Your task to perform on an android device: change notification settings in the gmail app Image 0: 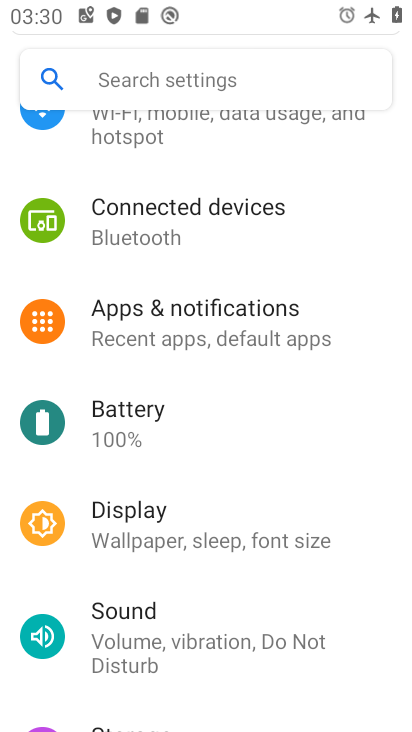
Step 0: press home button
Your task to perform on an android device: change notification settings in the gmail app Image 1: 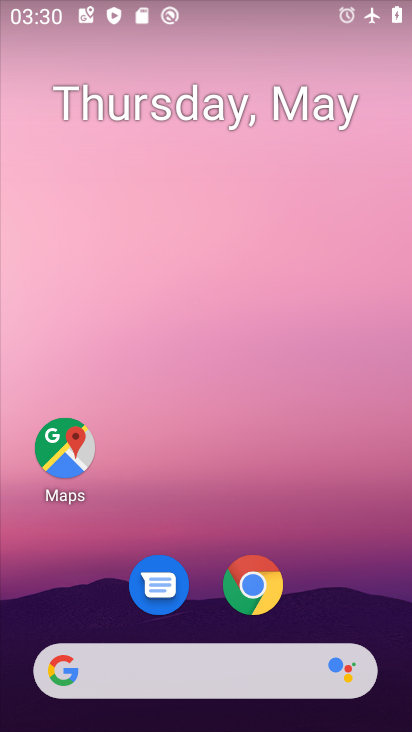
Step 1: drag from (206, 464) to (211, 62)
Your task to perform on an android device: change notification settings in the gmail app Image 2: 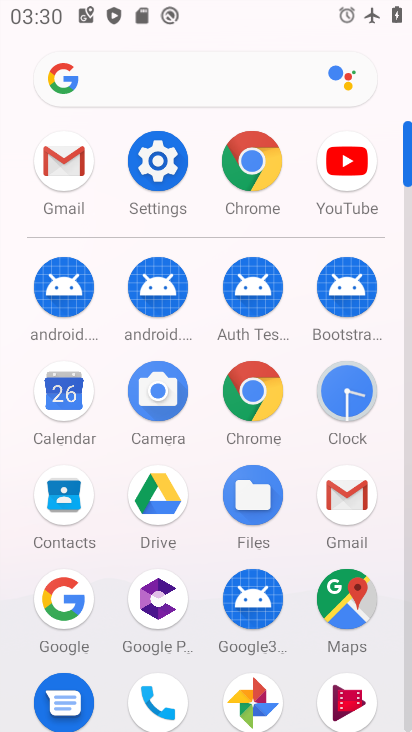
Step 2: click (74, 154)
Your task to perform on an android device: change notification settings in the gmail app Image 3: 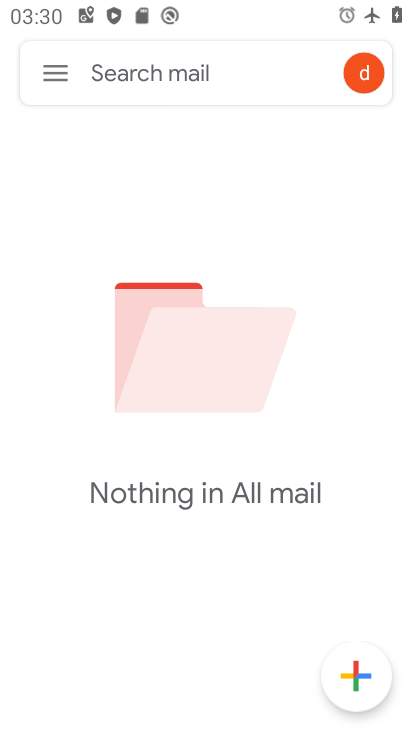
Step 3: click (62, 71)
Your task to perform on an android device: change notification settings in the gmail app Image 4: 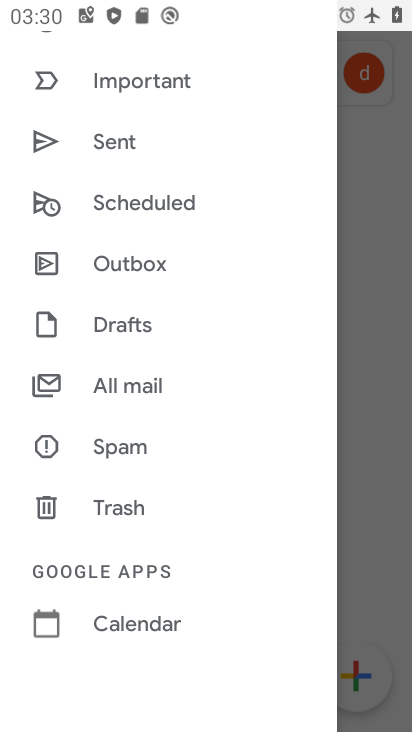
Step 4: drag from (168, 530) to (200, 90)
Your task to perform on an android device: change notification settings in the gmail app Image 5: 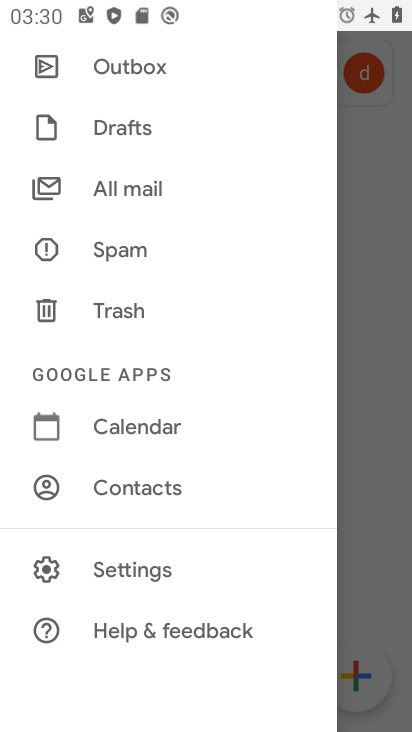
Step 5: click (121, 564)
Your task to perform on an android device: change notification settings in the gmail app Image 6: 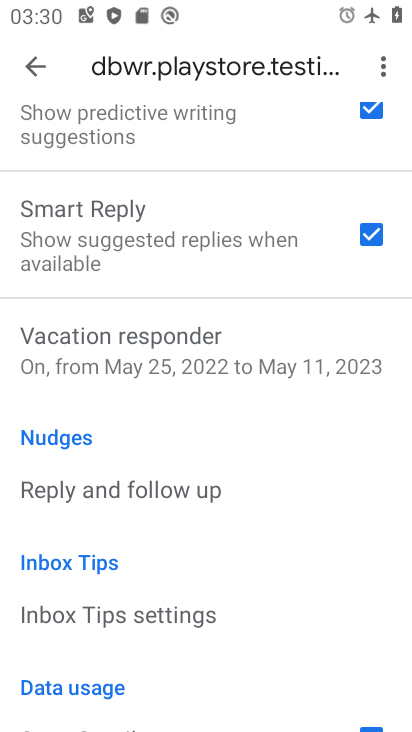
Step 6: drag from (224, 192) to (204, 731)
Your task to perform on an android device: change notification settings in the gmail app Image 7: 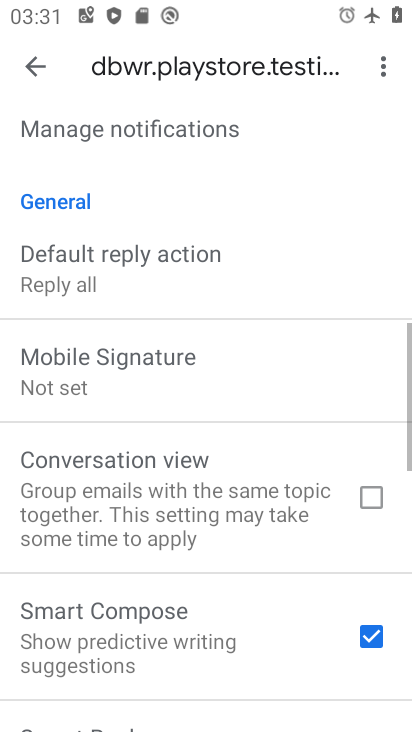
Step 7: drag from (237, 211) to (209, 523)
Your task to perform on an android device: change notification settings in the gmail app Image 8: 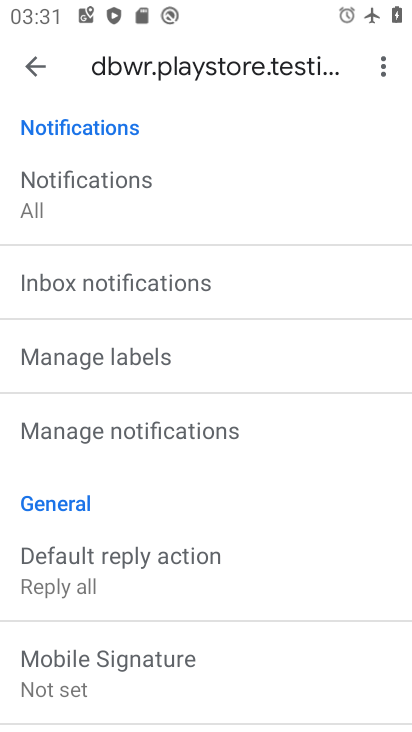
Step 8: click (201, 424)
Your task to perform on an android device: change notification settings in the gmail app Image 9: 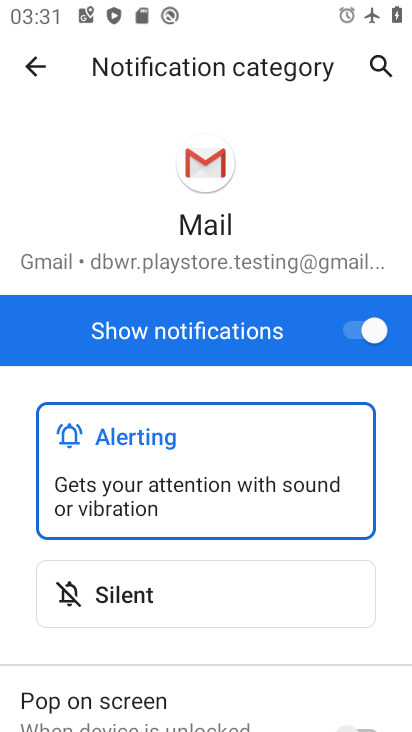
Step 9: click (354, 326)
Your task to perform on an android device: change notification settings in the gmail app Image 10: 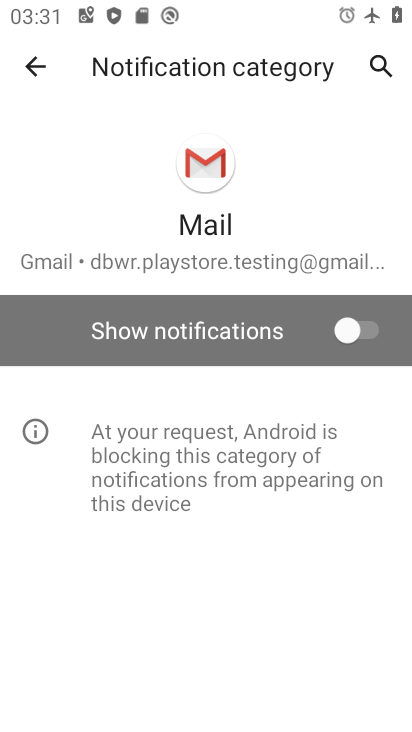
Step 10: task complete